Your task to perform on an android device: empty trash in google photos Image 0: 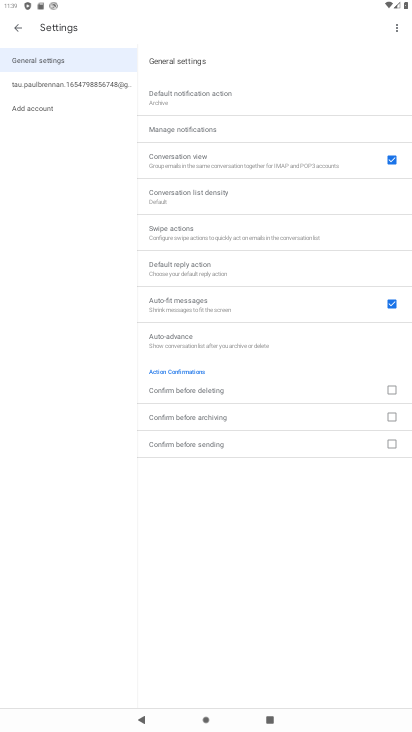
Step 0: press home button
Your task to perform on an android device: empty trash in google photos Image 1: 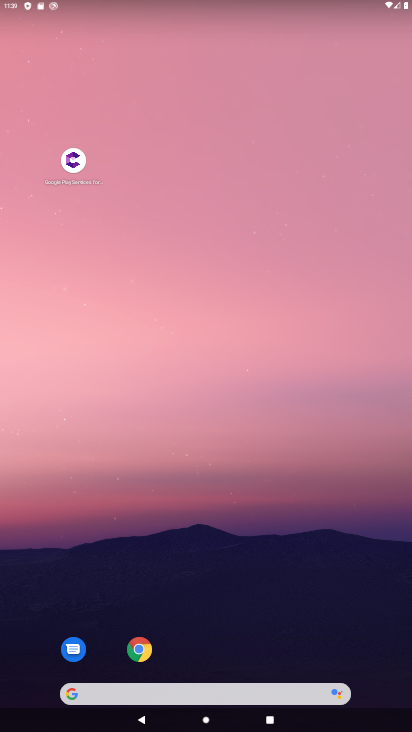
Step 1: press home button
Your task to perform on an android device: empty trash in google photos Image 2: 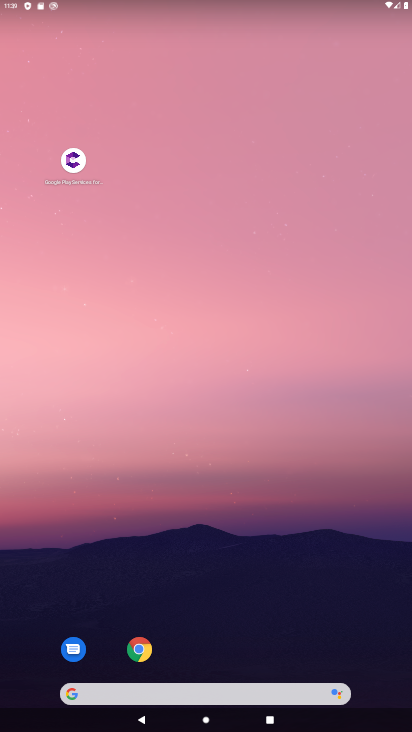
Step 2: drag from (238, 628) to (294, 109)
Your task to perform on an android device: empty trash in google photos Image 3: 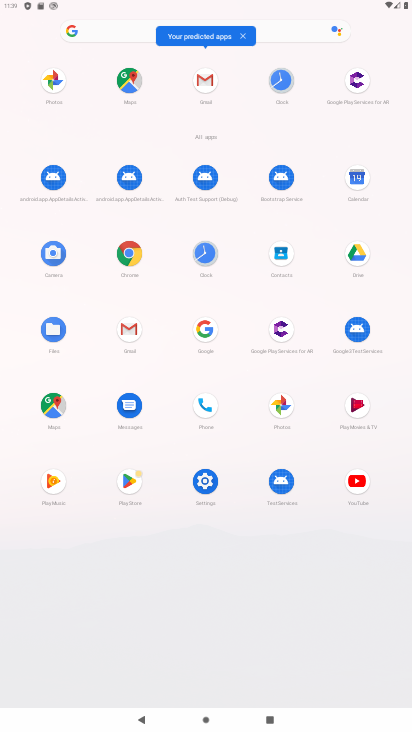
Step 3: click (283, 407)
Your task to perform on an android device: empty trash in google photos Image 4: 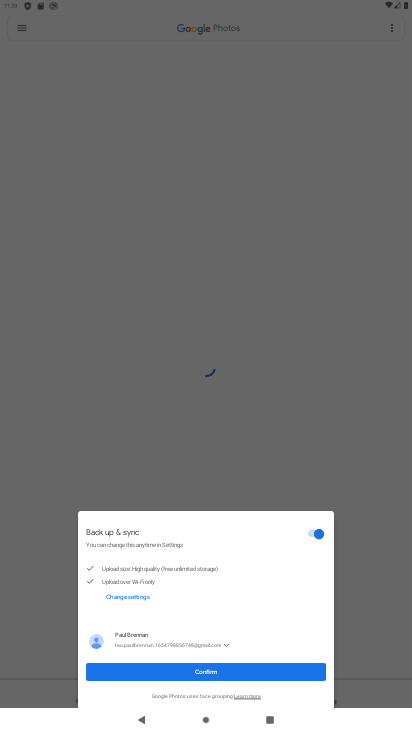
Step 4: click (278, 669)
Your task to perform on an android device: empty trash in google photos Image 5: 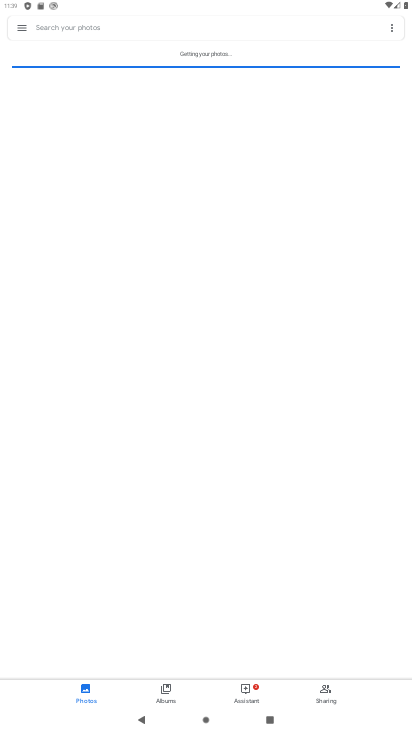
Step 5: click (17, 26)
Your task to perform on an android device: empty trash in google photos Image 6: 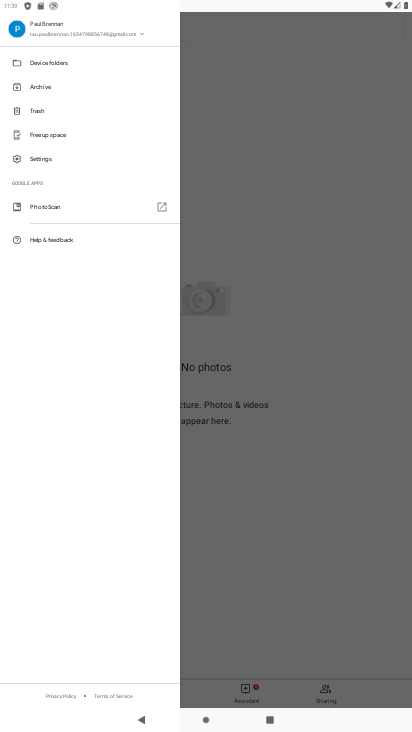
Step 6: click (51, 110)
Your task to perform on an android device: empty trash in google photos Image 7: 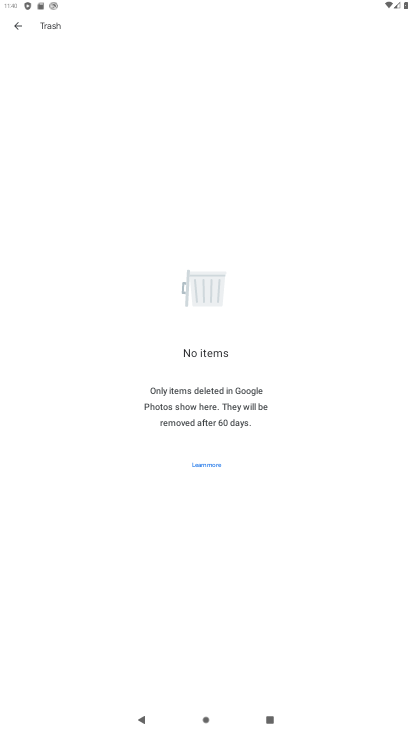
Step 7: task complete